Your task to perform on an android device: turn off airplane mode Image 0: 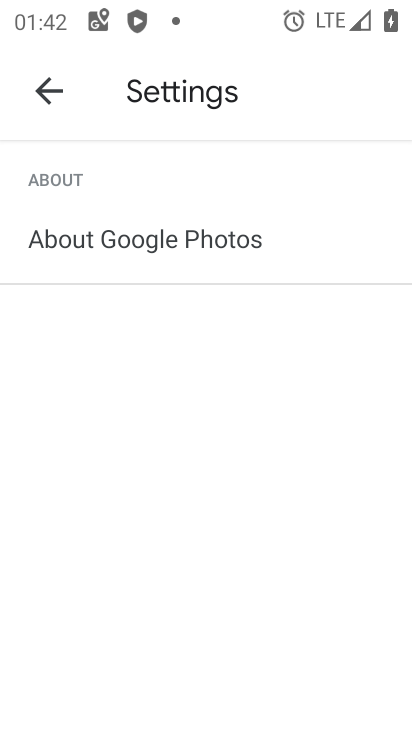
Step 0: press home button
Your task to perform on an android device: turn off airplane mode Image 1: 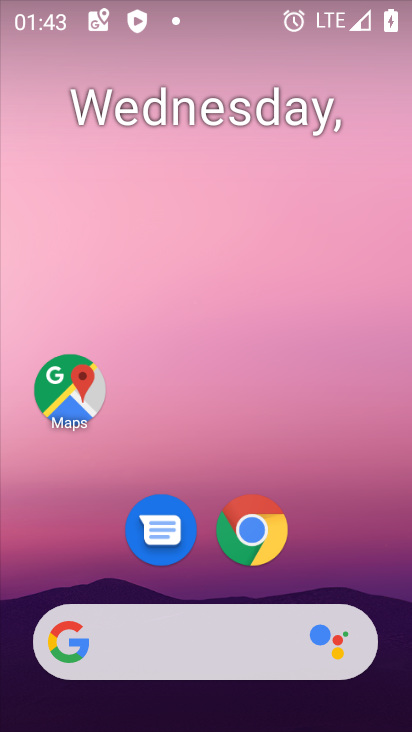
Step 1: drag from (328, 540) to (333, 147)
Your task to perform on an android device: turn off airplane mode Image 2: 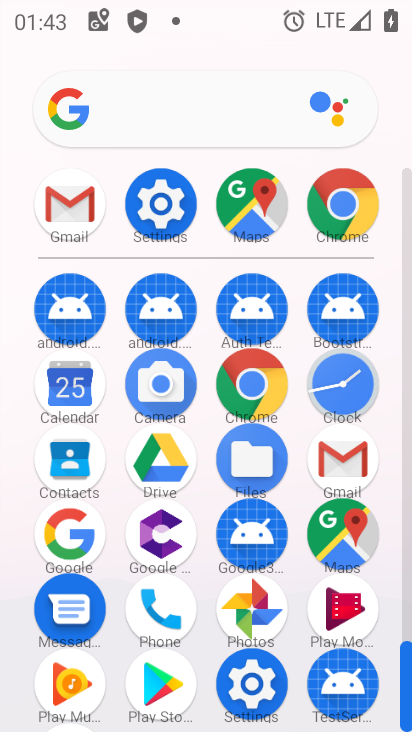
Step 2: click (175, 222)
Your task to perform on an android device: turn off airplane mode Image 3: 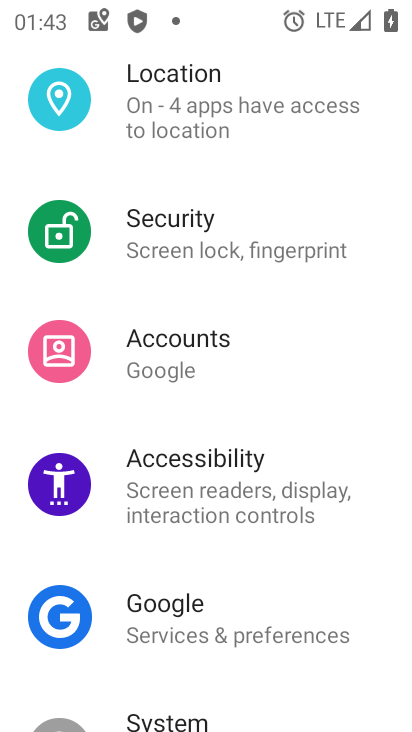
Step 3: drag from (284, 172) to (193, 629)
Your task to perform on an android device: turn off airplane mode Image 4: 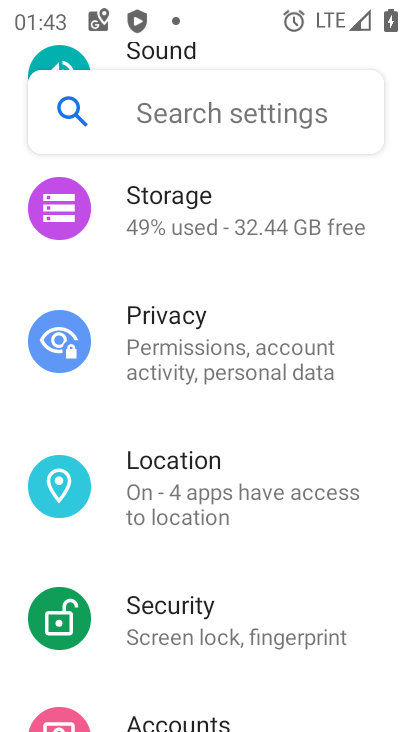
Step 4: drag from (274, 233) to (204, 630)
Your task to perform on an android device: turn off airplane mode Image 5: 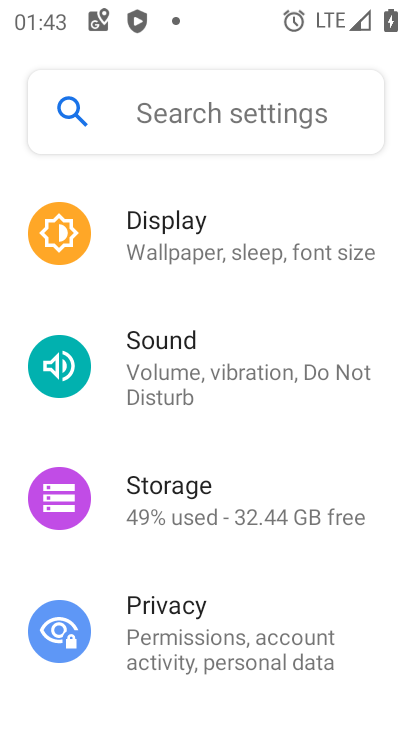
Step 5: drag from (299, 211) to (237, 699)
Your task to perform on an android device: turn off airplane mode Image 6: 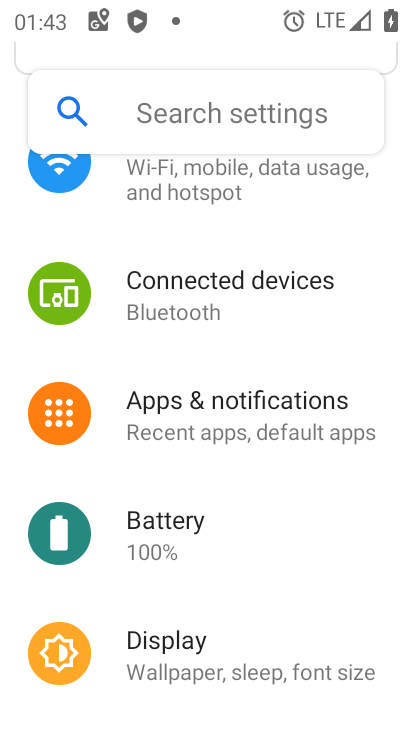
Step 6: drag from (267, 234) to (186, 676)
Your task to perform on an android device: turn off airplane mode Image 7: 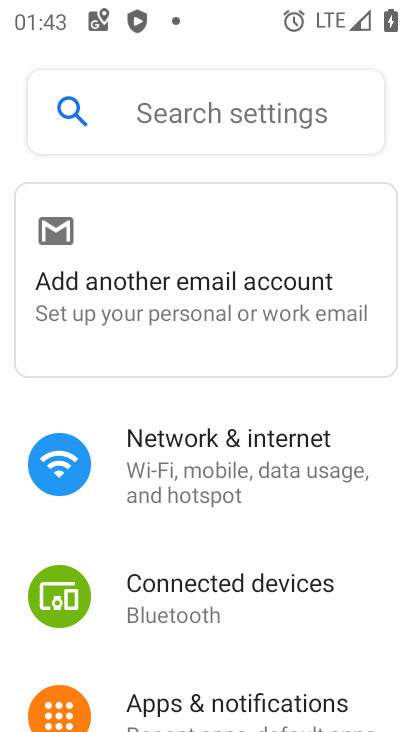
Step 7: click (196, 452)
Your task to perform on an android device: turn off airplane mode Image 8: 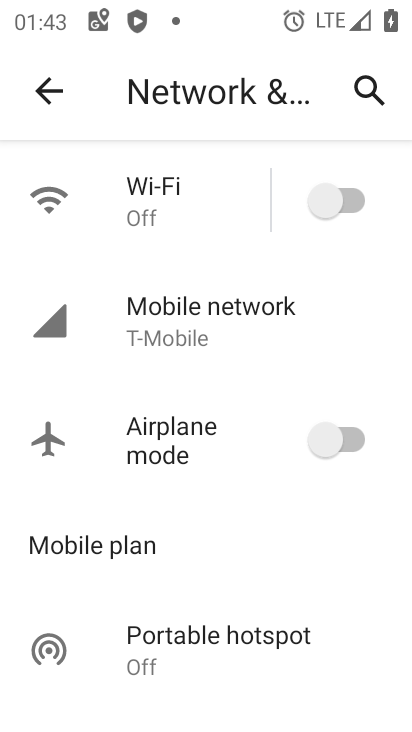
Step 8: task complete